Your task to perform on an android device: move a message to another label in the gmail app Image 0: 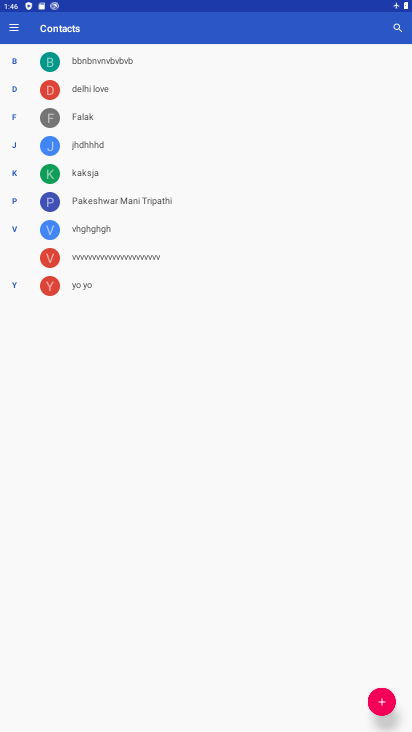
Step 0: press home button
Your task to perform on an android device: move a message to another label in the gmail app Image 1: 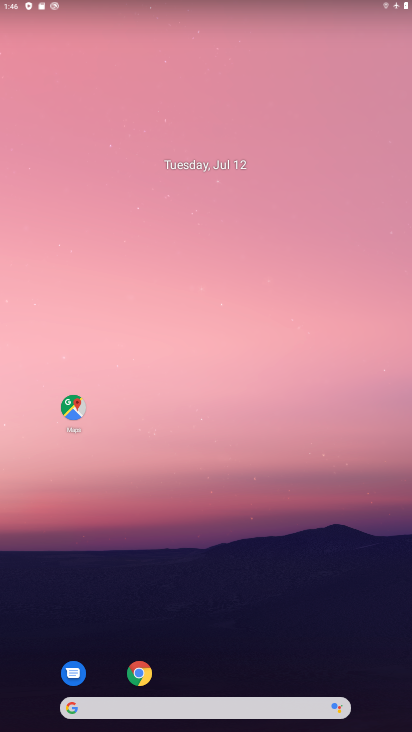
Step 1: drag from (188, 653) to (202, 127)
Your task to perform on an android device: move a message to another label in the gmail app Image 2: 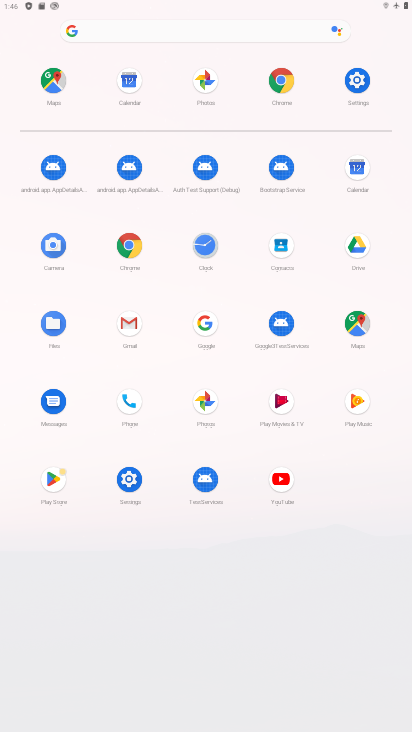
Step 2: click (138, 313)
Your task to perform on an android device: move a message to another label in the gmail app Image 3: 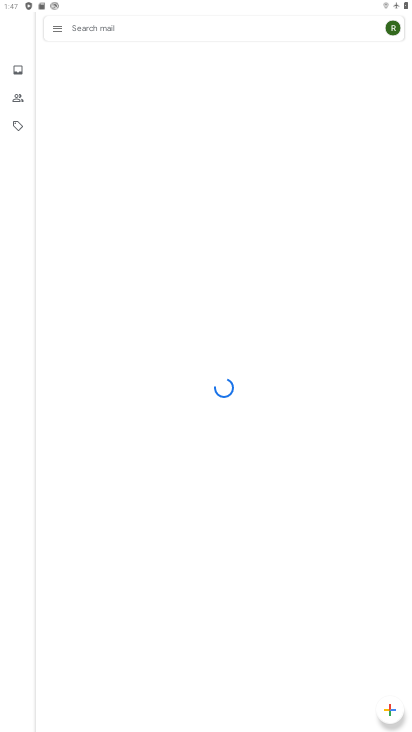
Step 3: click (52, 28)
Your task to perform on an android device: move a message to another label in the gmail app Image 4: 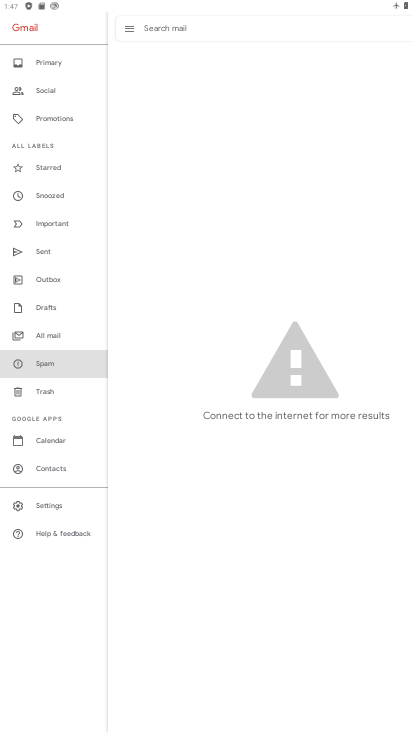
Step 4: click (65, 326)
Your task to perform on an android device: move a message to another label in the gmail app Image 5: 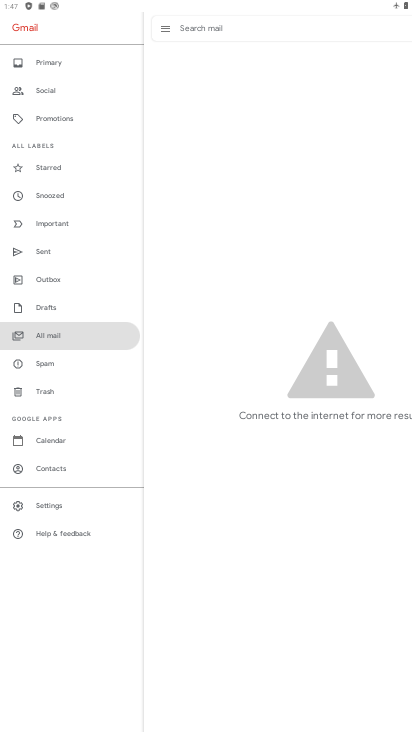
Step 5: task complete